Your task to perform on an android device: Open accessibility settings Image 0: 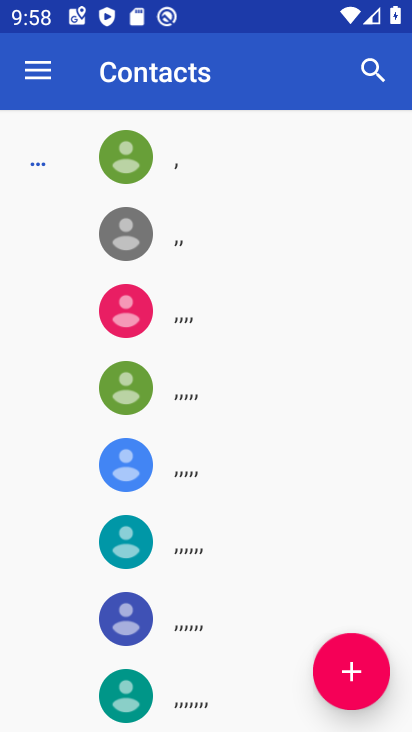
Step 0: press home button
Your task to perform on an android device: Open accessibility settings Image 1: 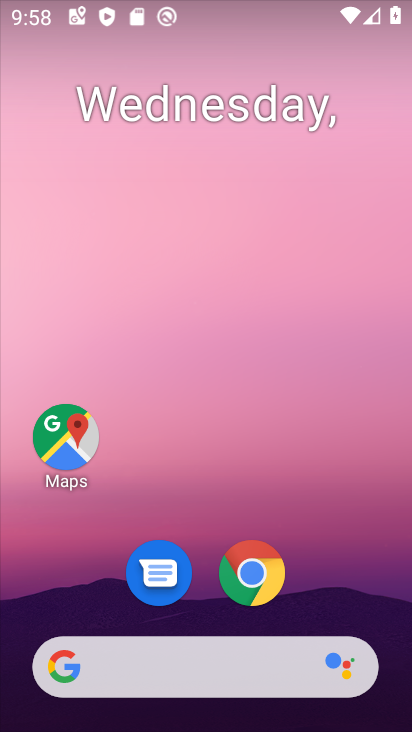
Step 1: drag from (380, 607) to (365, 114)
Your task to perform on an android device: Open accessibility settings Image 2: 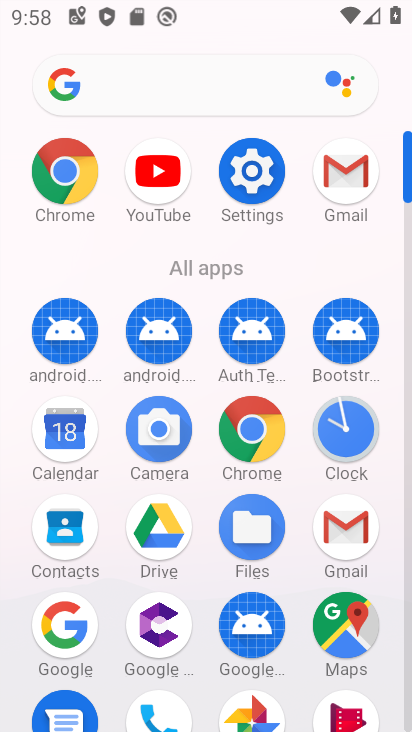
Step 2: click (264, 194)
Your task to perform on an android device: Open accessibility settings Image 3: 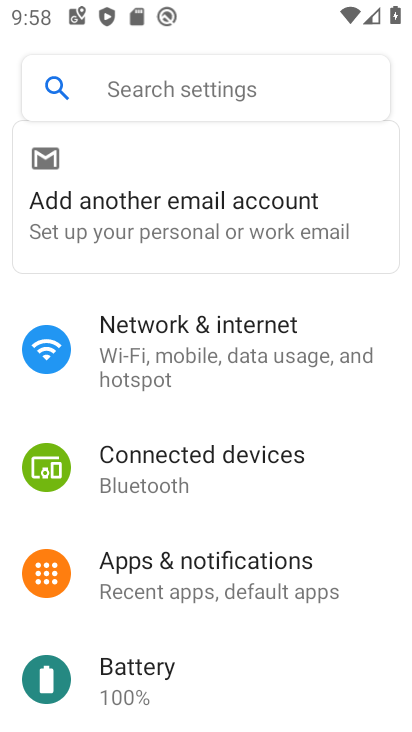
Step 3: drag from (358, 627) to (352, 520)
Your task to perform on an android device: Open accessibility settings Image 4: 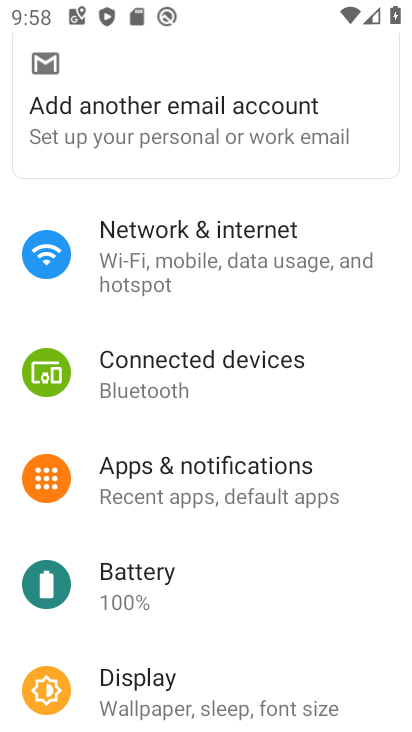
Step 4: drag from (356, 633) to (363, 496)
Your task to perform on an android device: Open accessibility settings Image 5: 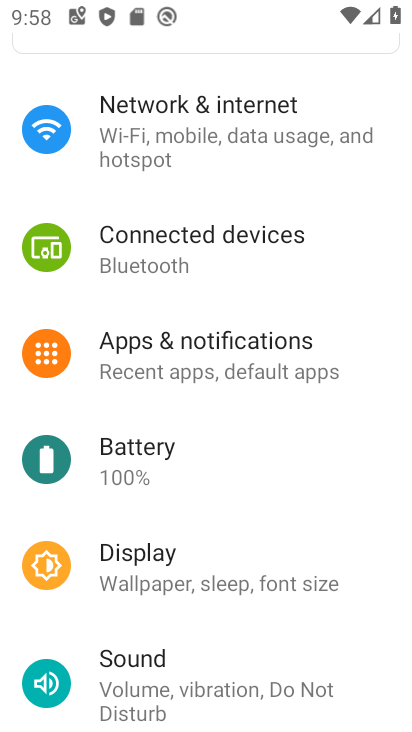
Step 5: drag from (367, 614) to (366, 501)
Your task to perform on an android device: Open accessibility settings Image 6: 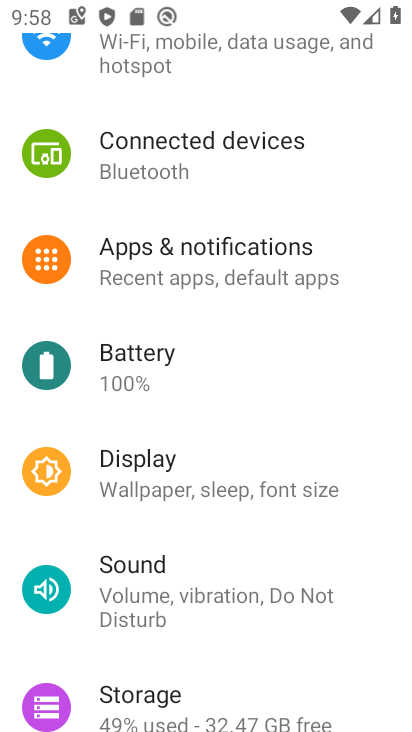
Step 6: drag from (356, 632) to (355, 467)
Your task to perform on an android device: Open accessibility settings Image 7: 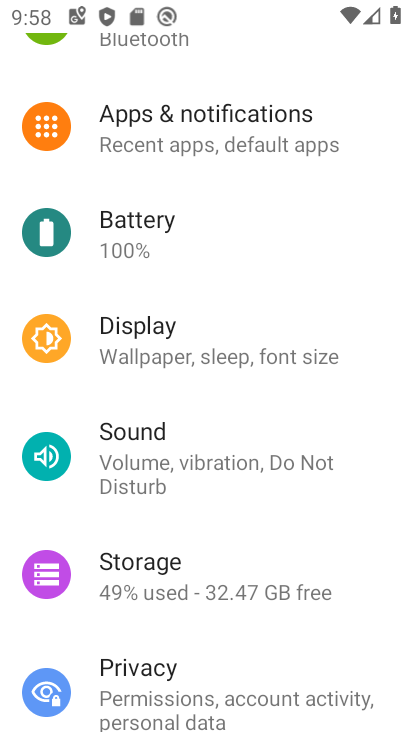
Step 7: drag from (356, 651) to (357, 530)
Your task to perform on an android device: Open accessibility settings Image 8: 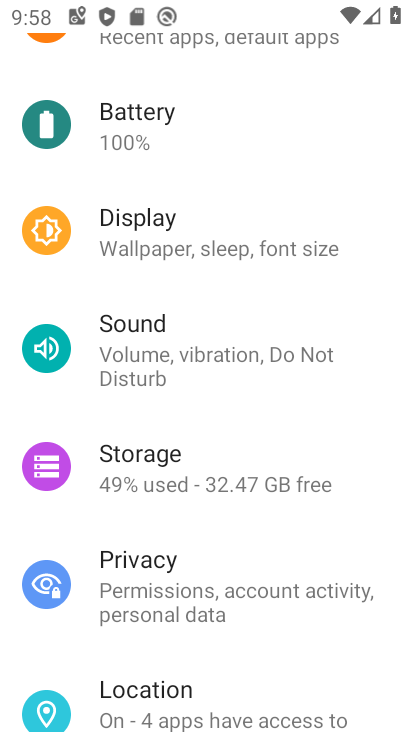
Step 8: drag from (360, 674) to (360, 525)
Your task to perform on an android device: Open accessibility settings Image 9: 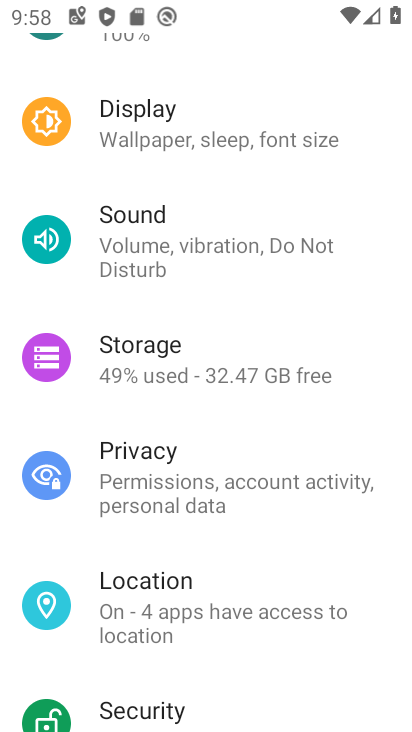
Step 9: drag from (350, 687) to (364, 560)
Your task to perform on an android device: Open accessibility settings Image 10: 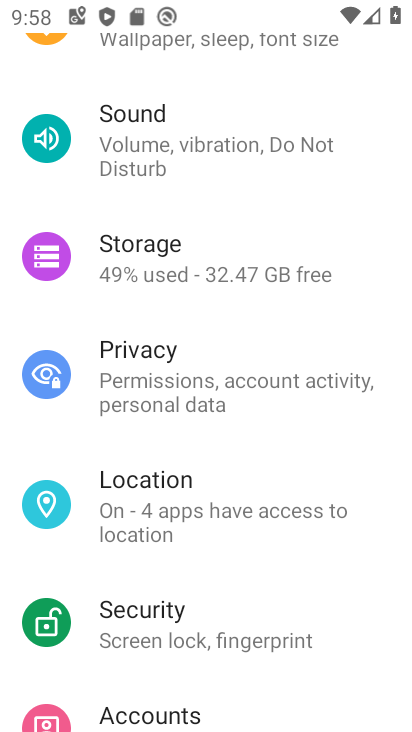
Step 10: drag from (363, 691) to (369, 572)
Your task to perform on an android device: Open accessibility settings Image 11: 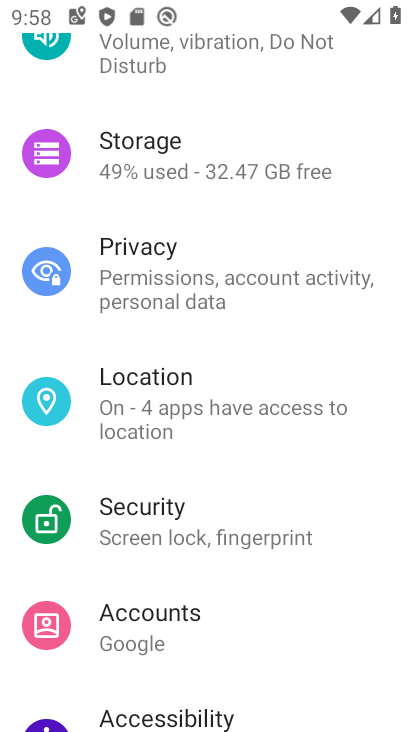
Step 11: drag from (365, 677) to (365, 543)
Your task to perform on an android device: Open accessibility settings Image 12: 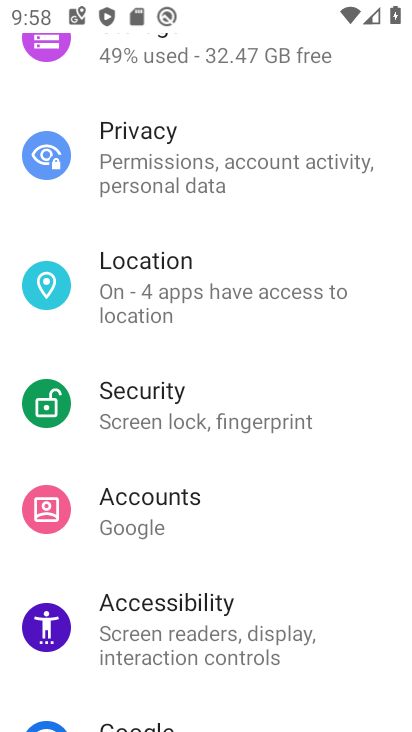
Step 12: drag from (347, 687) to (351, 570)
Your task to perform on an android device: Open accessibility settings Image 13: 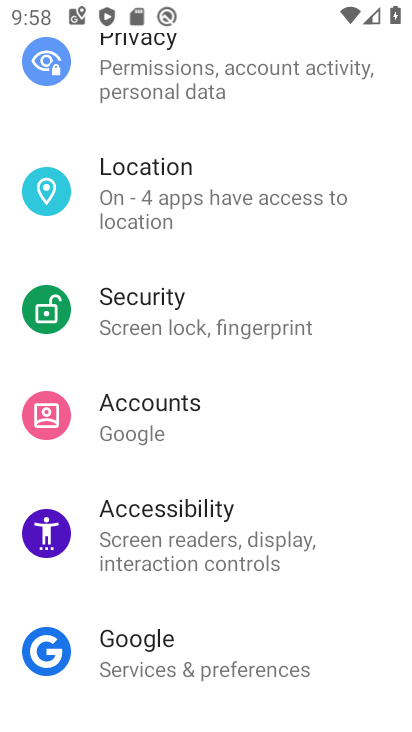
Step 13: drag from (359, 661) to (352, 518)
Your task to perform on an android device: Open accessibility settings Image 14: 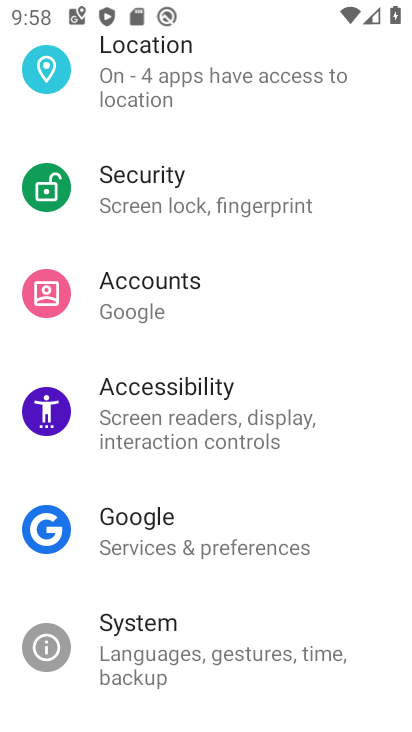
Step 14: drag from (363, 607) to (369, 344)
Your task to perform on an android device: Open accessibility settings Image 15: 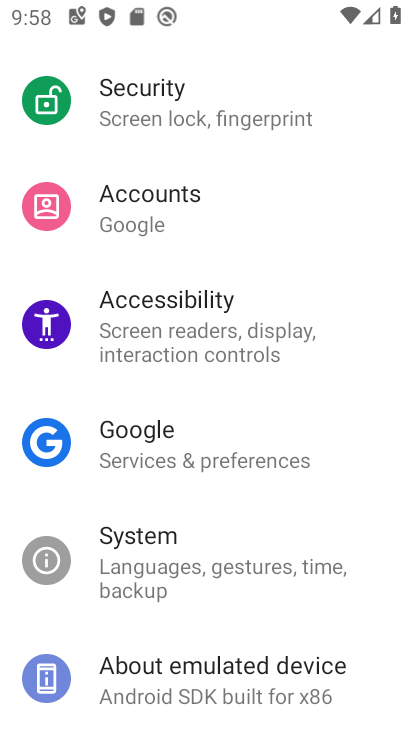
Step 15: drag from (351, 272) to (350, 393)
Your task to perform on an android device: Open accessibility settings Image 16: 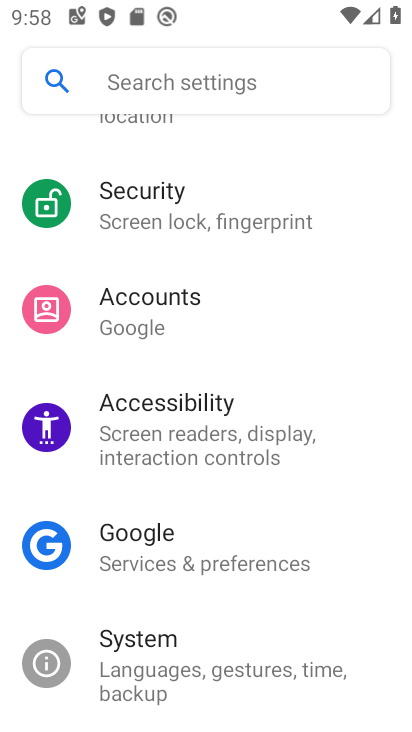
Step 16: click (253, 453)
Your task to perform on an android device: Open accessibility settings Image 17: 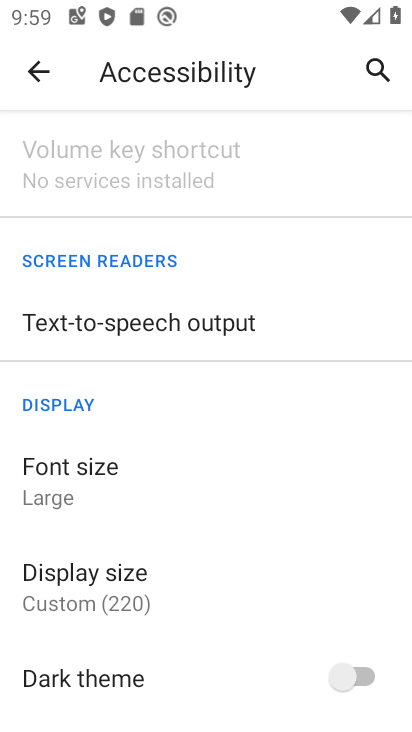
Step 17: task complete